Your task to perform on an android device: check android version Image 0: 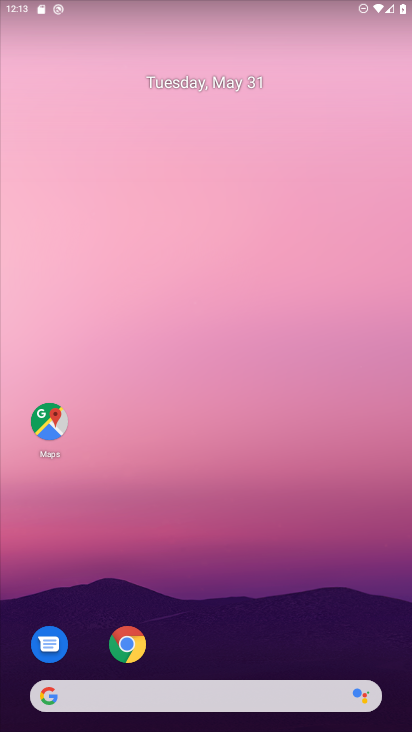
Step 0: drag from (187, 638) to (295, 85)
Your task to perform on an android device: check android version Image 1: 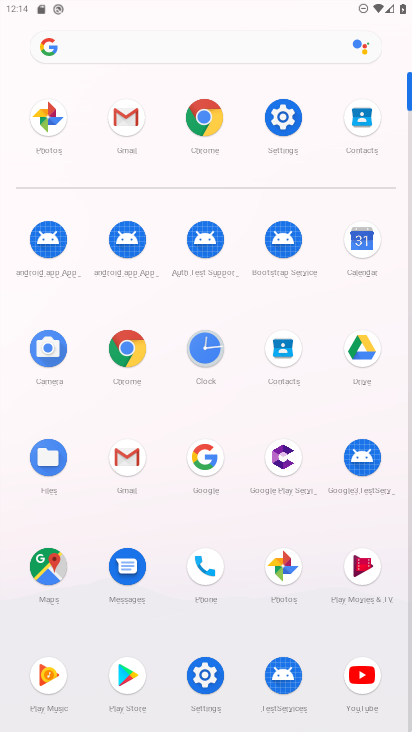
Step 1: click (209, 676)
Your task to perform on an android device: check android version Image 2: 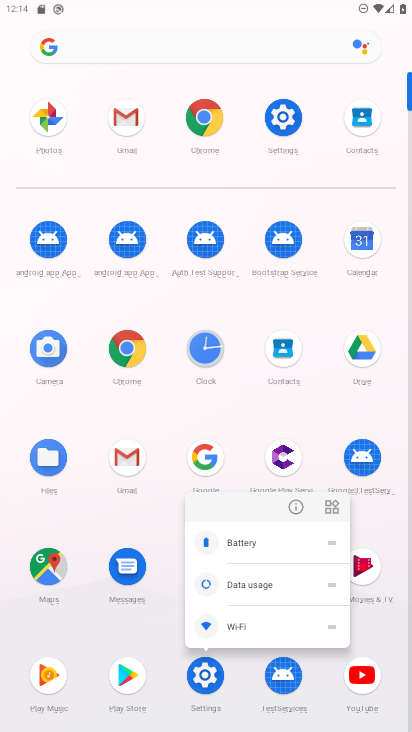
Step 2: click (298, 507)
Your task to perform on an android device: check android version Image 3: 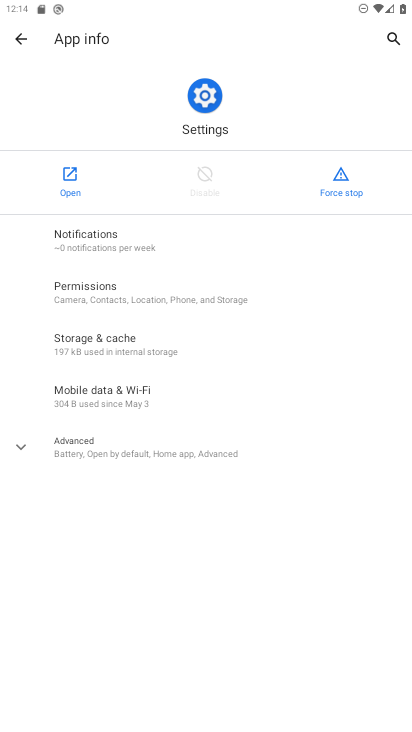
Step 3: click (67, 174)
Your task to perform on an android device: check android version Image 4: 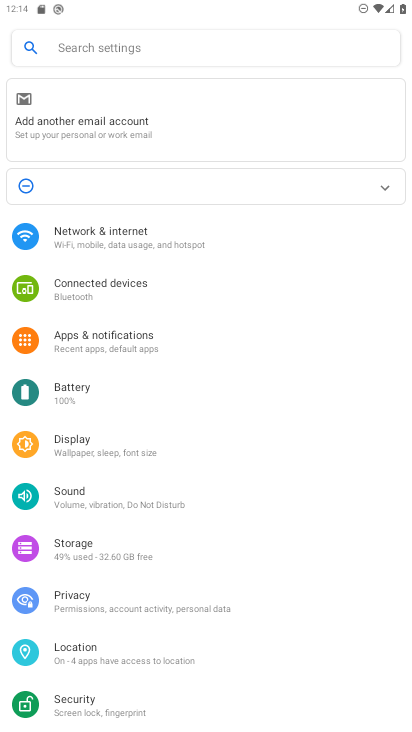
Step 4: drag from (114, 631) to (335, 0)
Your task to perform on an android device: check android version Image 5: 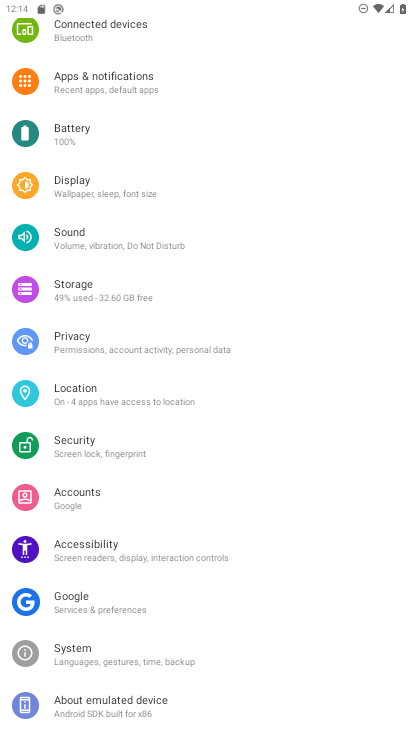
Step 5: click (101, 708)
Your task to perform on an android device: check android version Image 6: 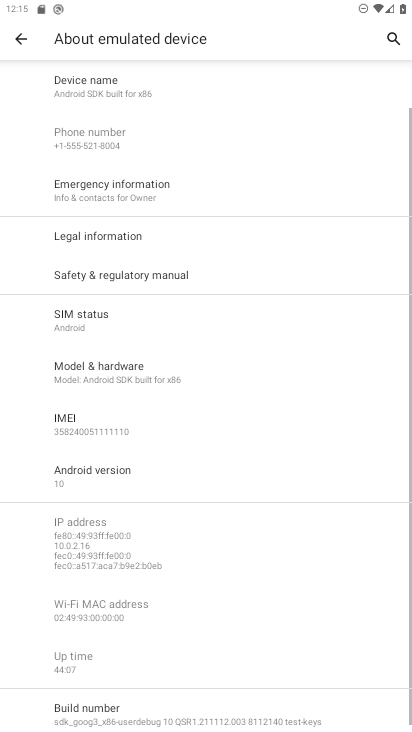
Step 6: drag from (205, 613) to (229, 693)
Your task to perform on an android device: check android version Image 7: 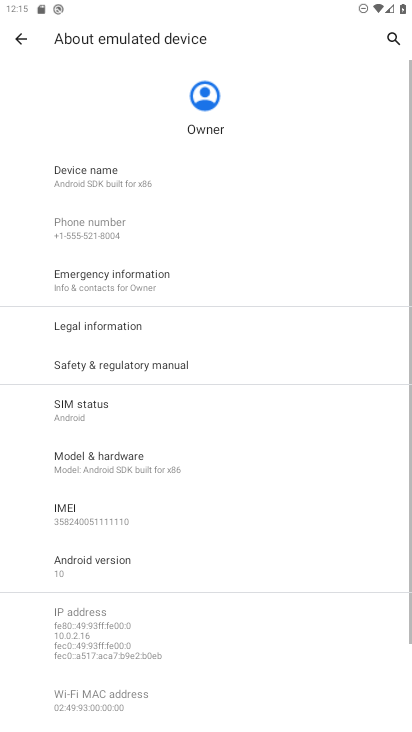
Step 7: click (127, 554)
Your task to perform on an android device: check android version Image 8: 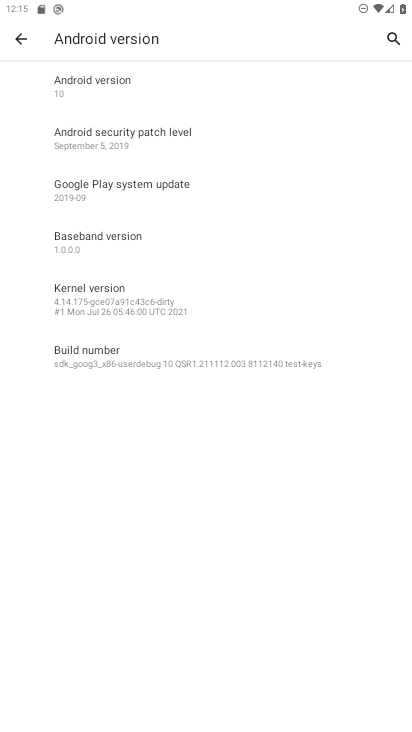
Step 8: task complete